Your task to perform on an android device: Turn on the flashlight Image 0: 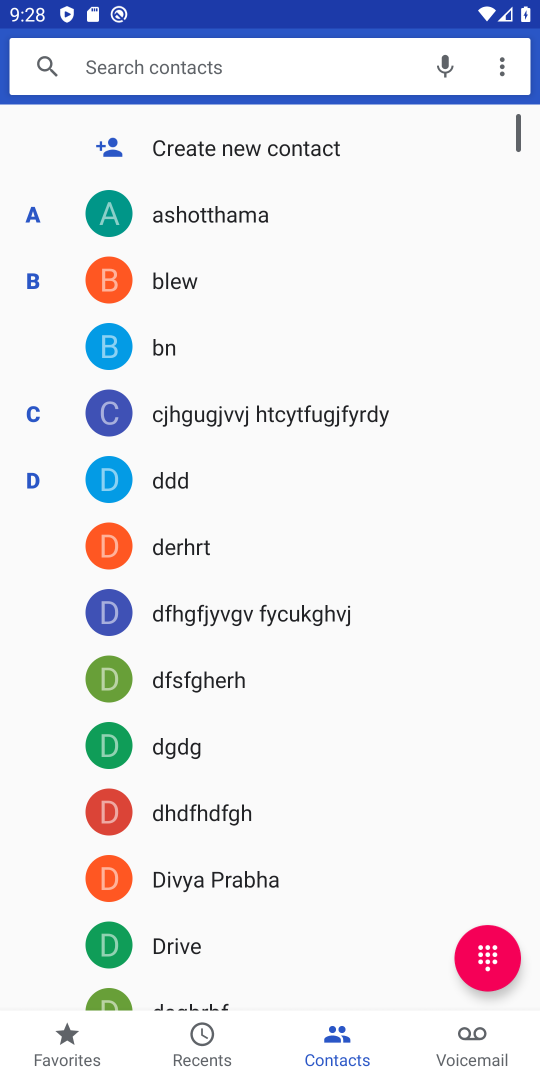
Step 0: press home button
Your task to perform on an android device: Turn on the flashlight Image 1: 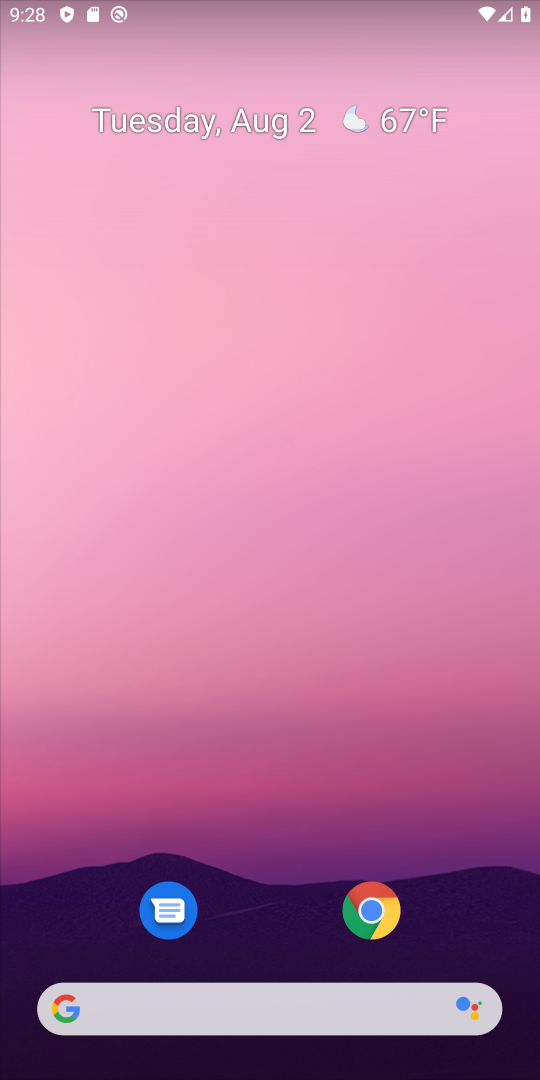
Step 1: drag from (290, 937) to (255, 287)
Your task to perform on an android device: Turn on the flashlight Image 2: 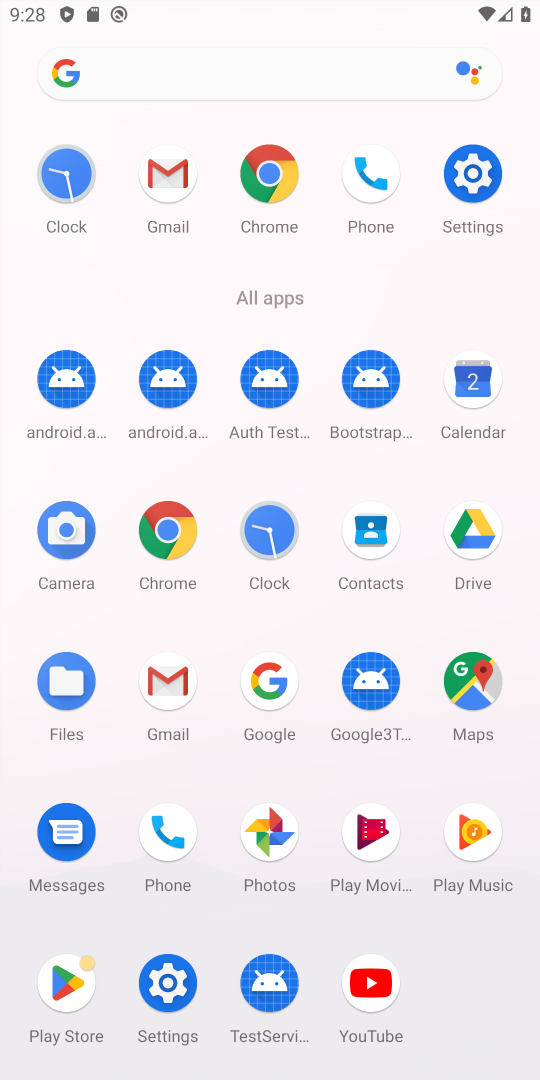
Step 2: click (468, 185)
Your task to perform on an android device: Turn on the flashlight Image 3: 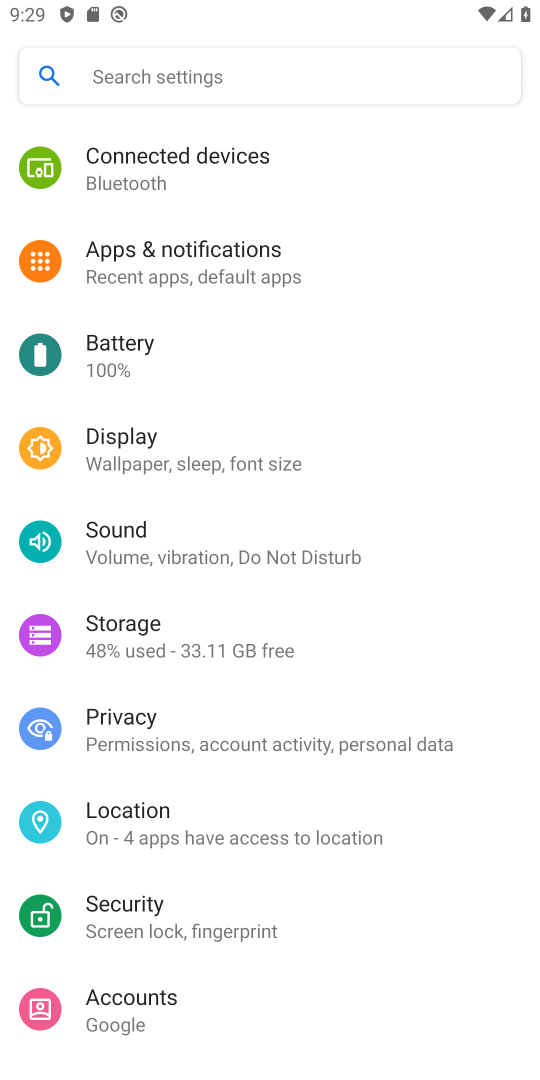
Step 3: task complete